Your task to perform on an android device: Open Google Chrome and open the bookmarks view Image 0: 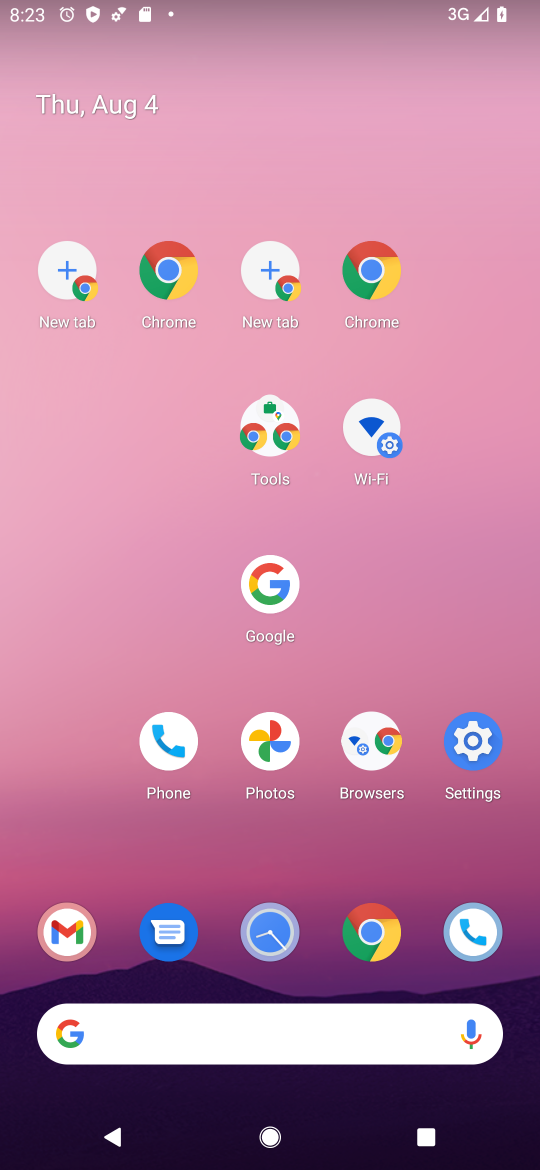
Step 0: click (289, 471)
Your task to perform on an android device: Open Google Chrome and open the bookmarks view Image 1: 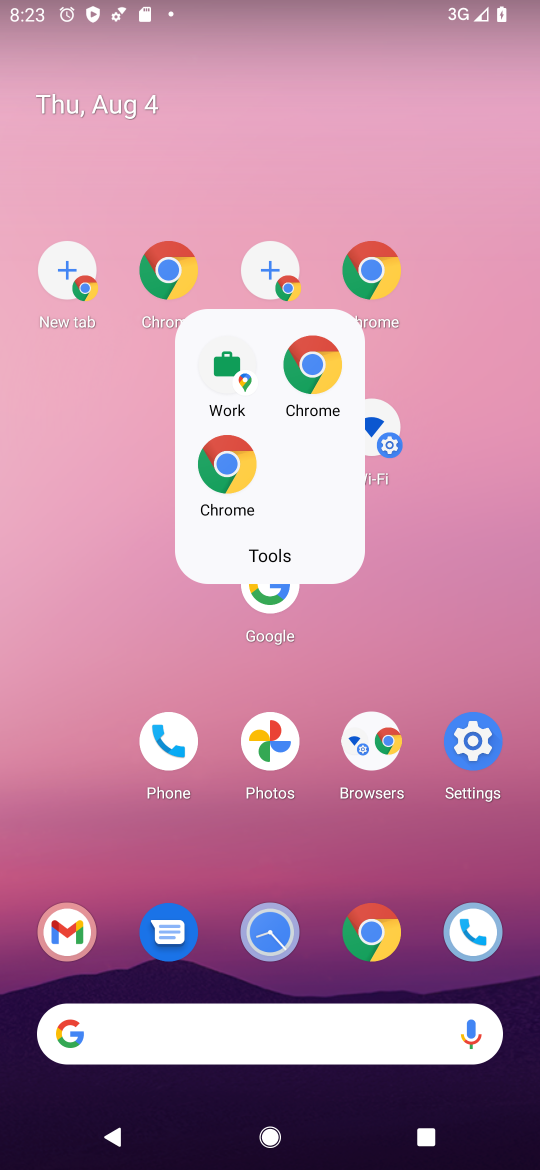
Step 1: drag from (297, 1031) to (281, 261)
Your task to perform on an android device: Open Google Chrome and open the bookmarks view Image 2: 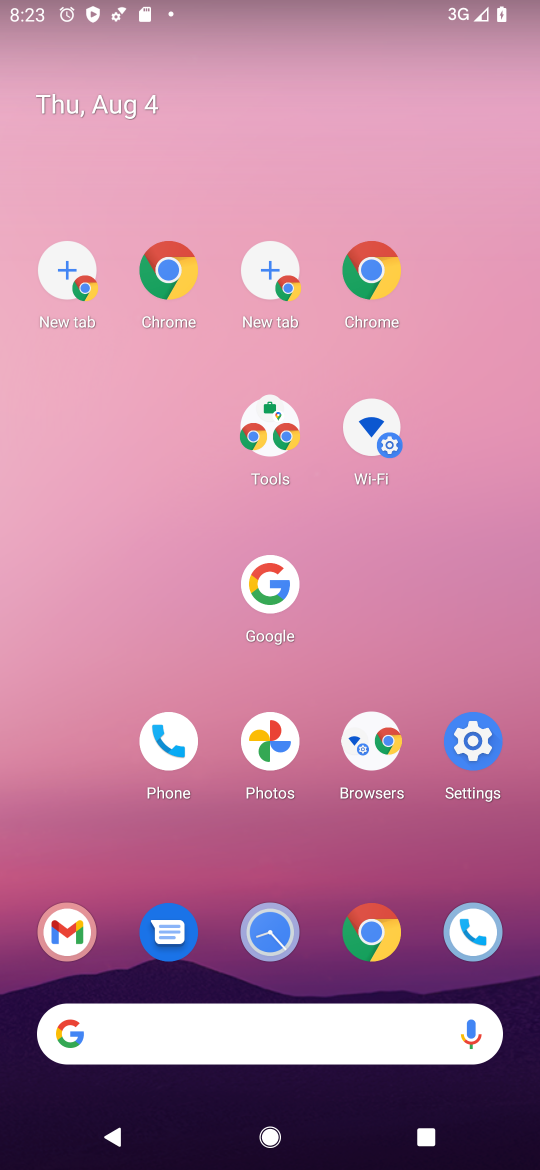
Step 2: drag from (464, 619) to (398, 91)
Your task to perform on an android device: Open Google Chrome and open the bookmarks view Image 3: 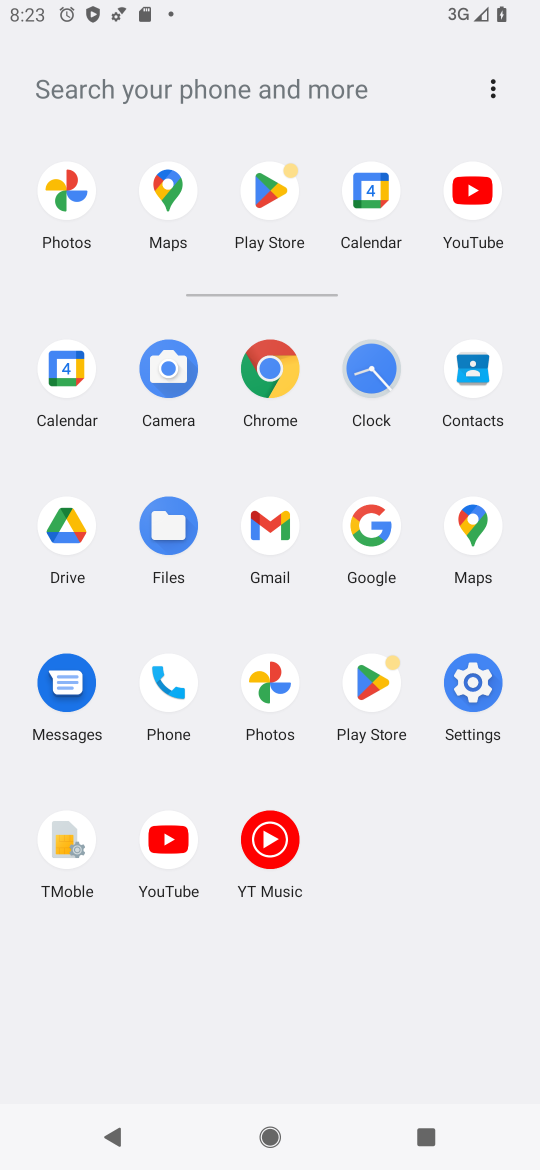
Step 3: click (374, 525)
Your task to perform on an android device: Open Google Chrome and open the bookmarks view Image 4: 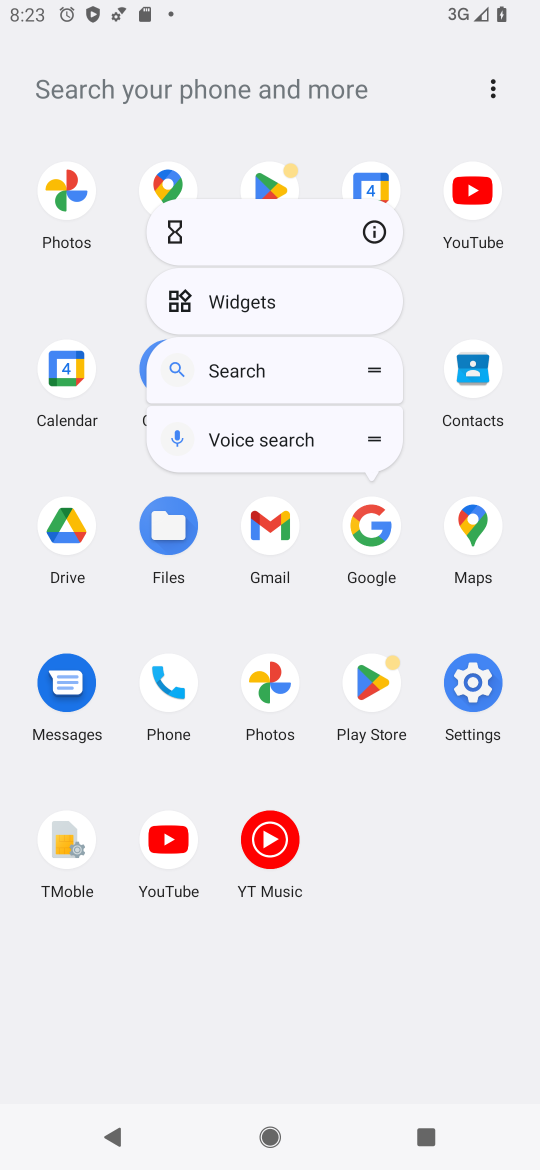
Step 4: click (405, 294)
Your task to perform on an android device: Open Google Chrome and open the bookmarks view Image 5: 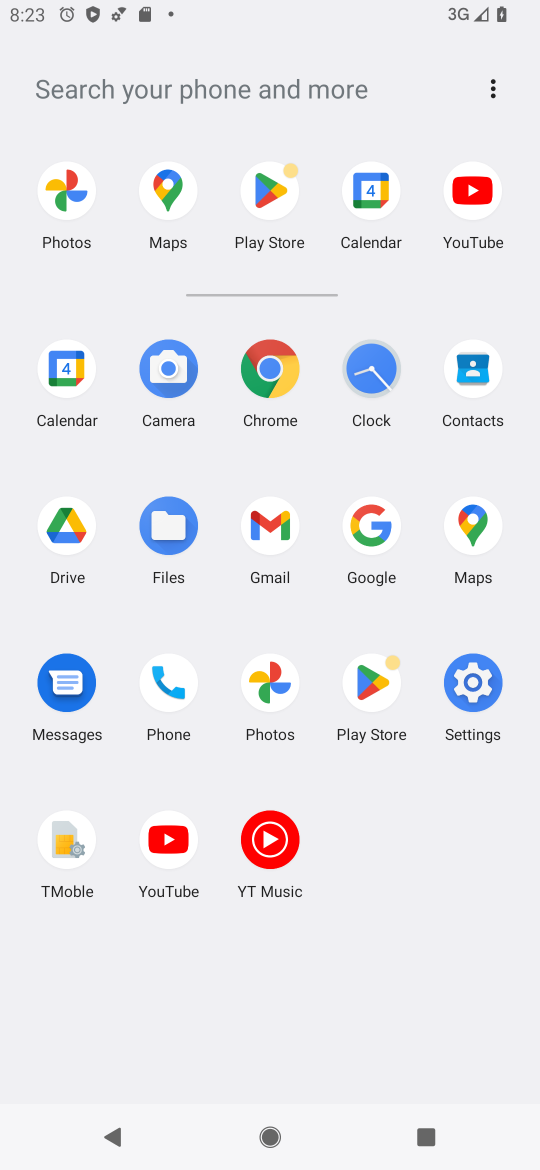
Step 5: click (265, 382)
Your task to perform on an android device: Open Google Chrome and open the bookmarks view Image 6: 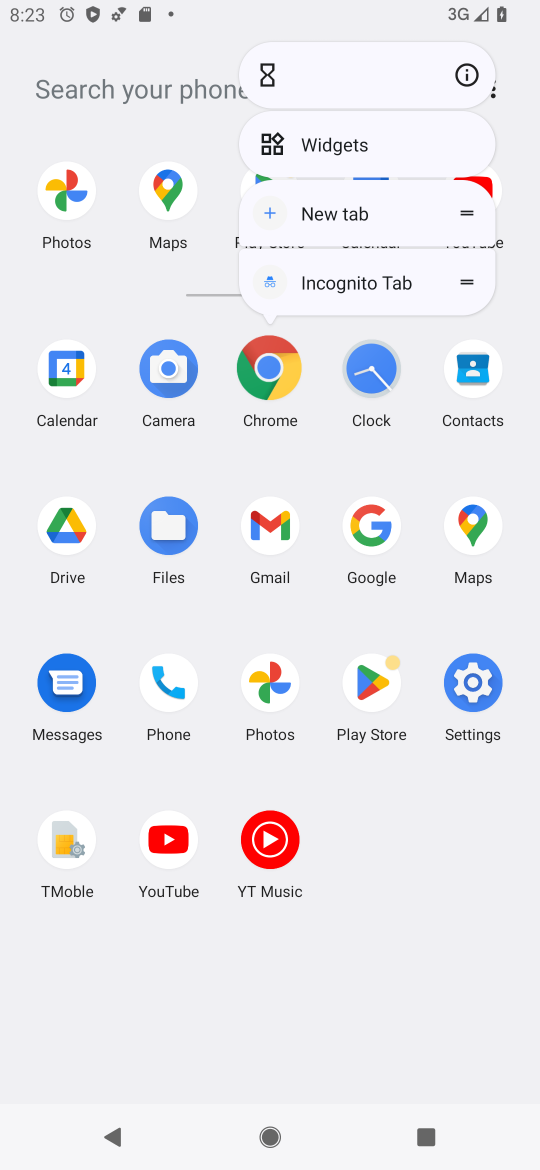
Step 6: click (265, 377)
Your task to perform on an android device: Open Google Chrome and open the bookmarks view Image 7: 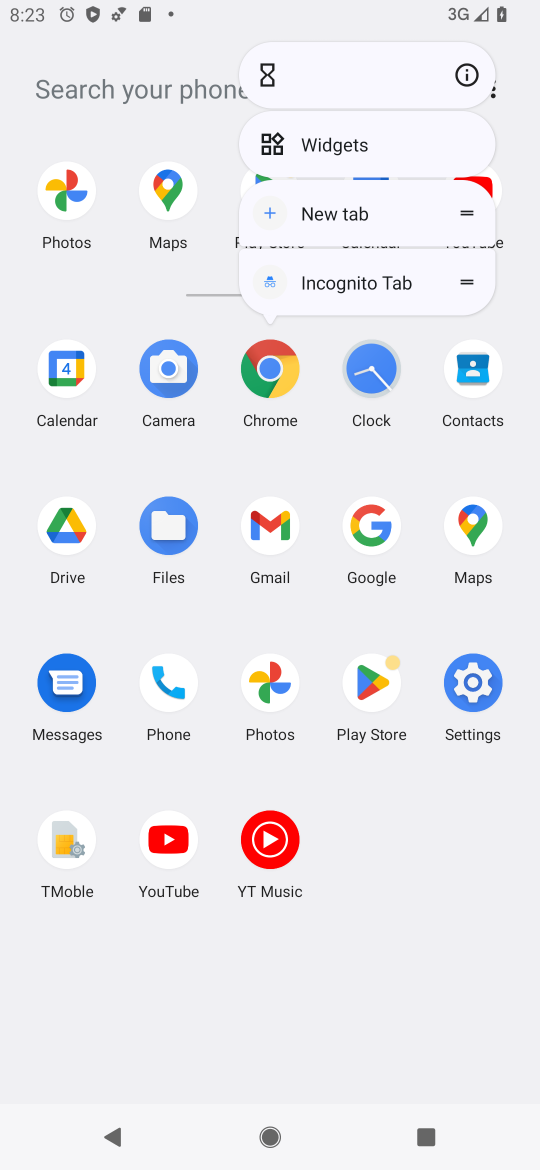
Step 7: click (345, 196)
Your task to perform on an android device: Open Google Chrome and open the bookmarks view Image 8: 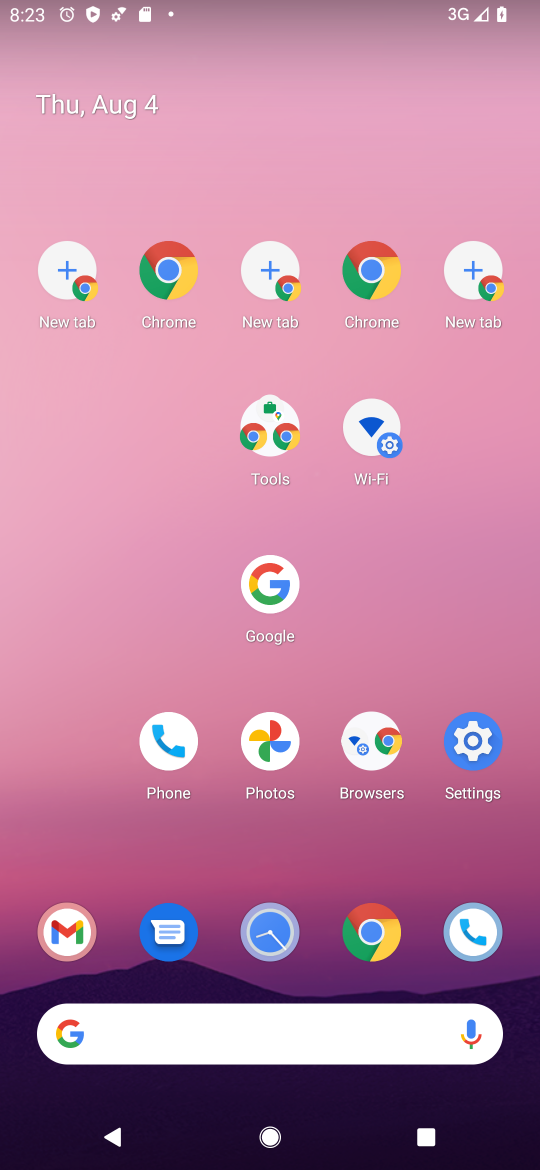
Step 8: click (168, 264)
Your task to perform on an android device: Open Google Chrome and open the bookmarks view Image 9: 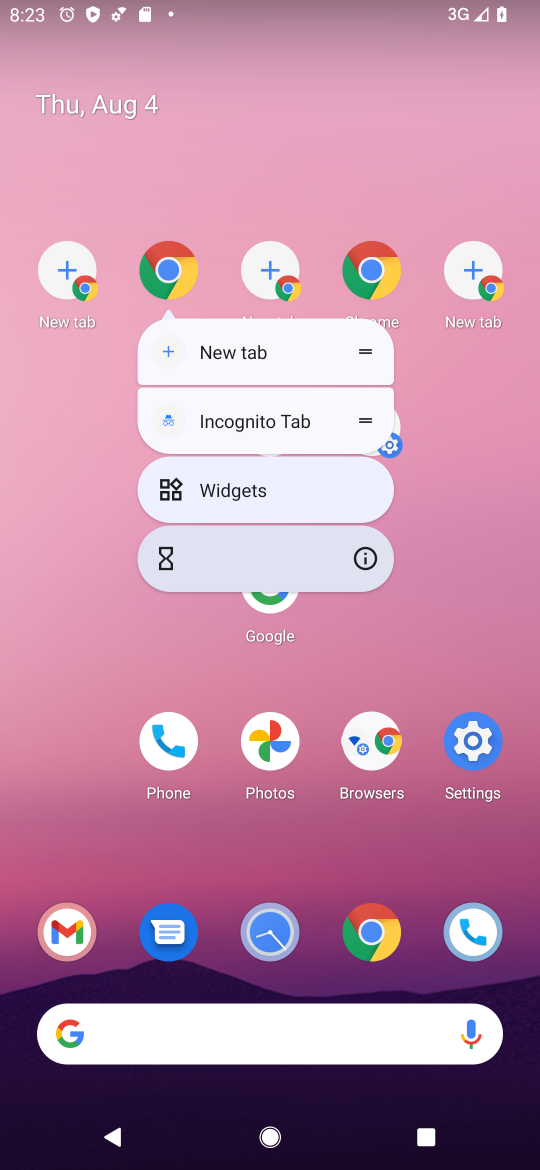
Step 9: click (235, 350)
Your task to perform on an android device: Open Google Chrome and open the bookmarks view Image 10: 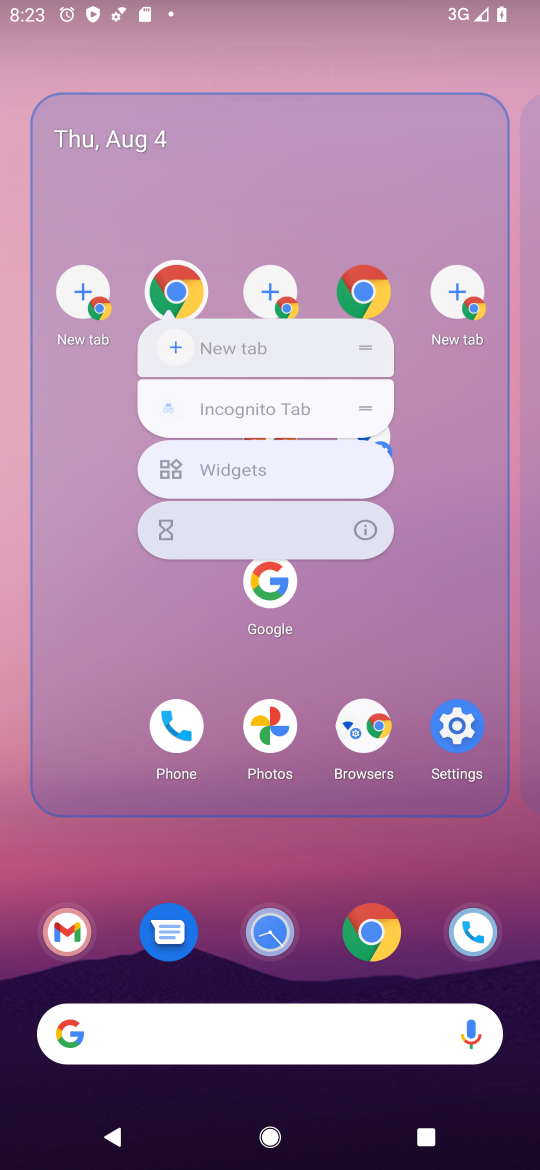
Step 10: click (238, 353)
Your task to perform on an android device: Open Google Chrome and open the bookmarks view Image 11: 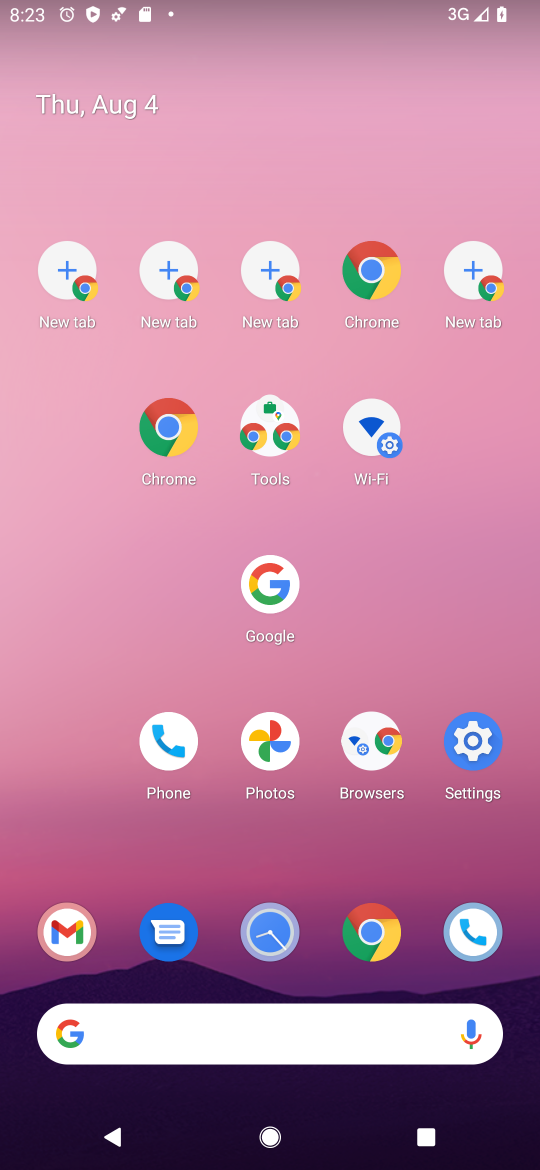
Step 11: task complete